Your task to perform on an android device: uninstall "Viber Messenger" Image 0: 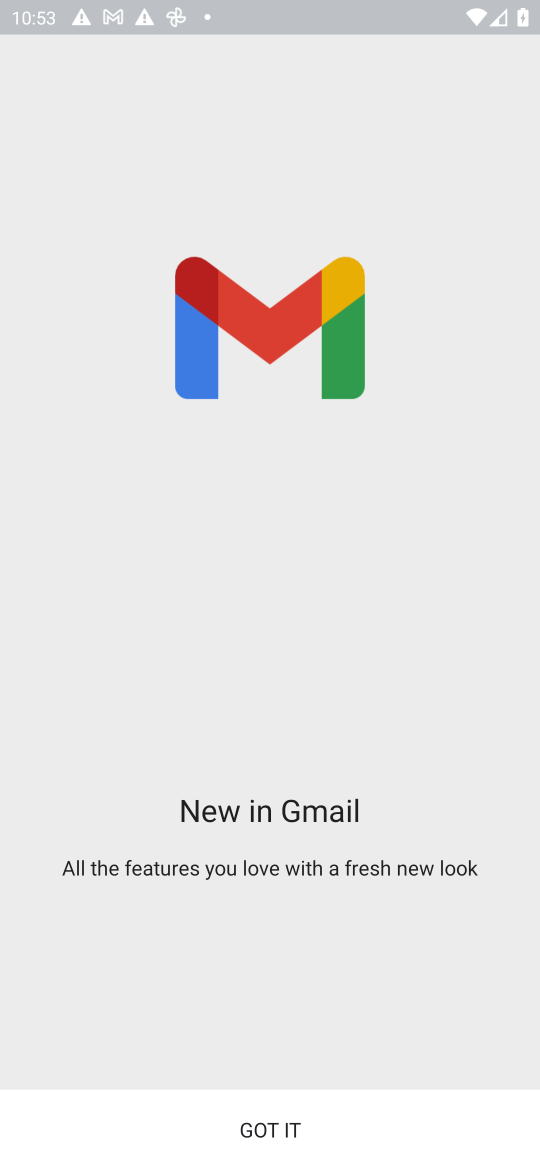
Step 0: press home button
Your task to perform on an android device: uninstall "Viber Messenger" Image 1: 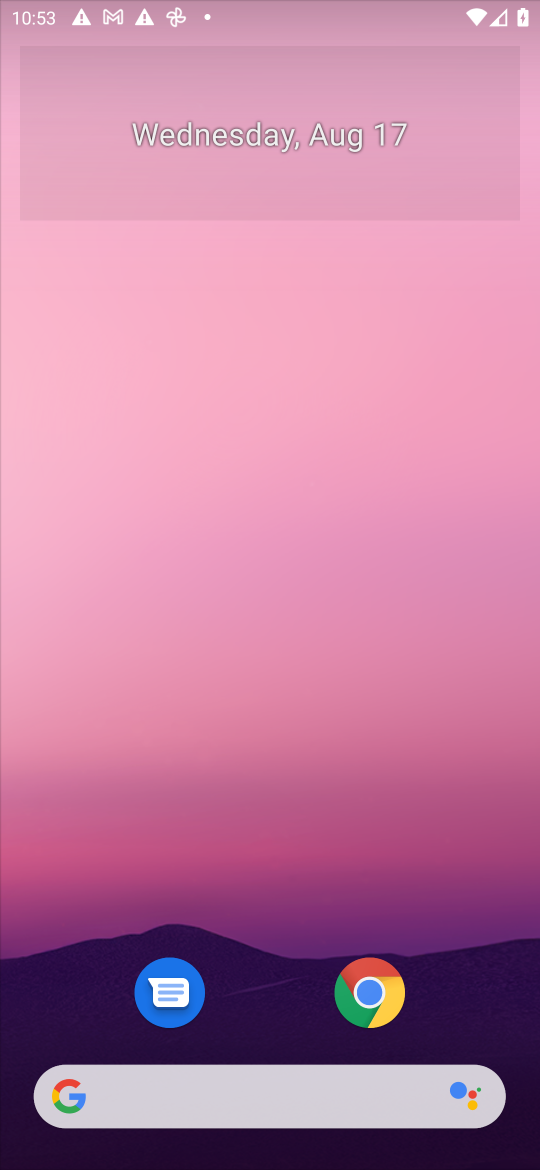
Step 1: drag from (488, 990) to (234, 8)
Your task to perform on an android device: uninstall "Viber Messenger" Image 2: 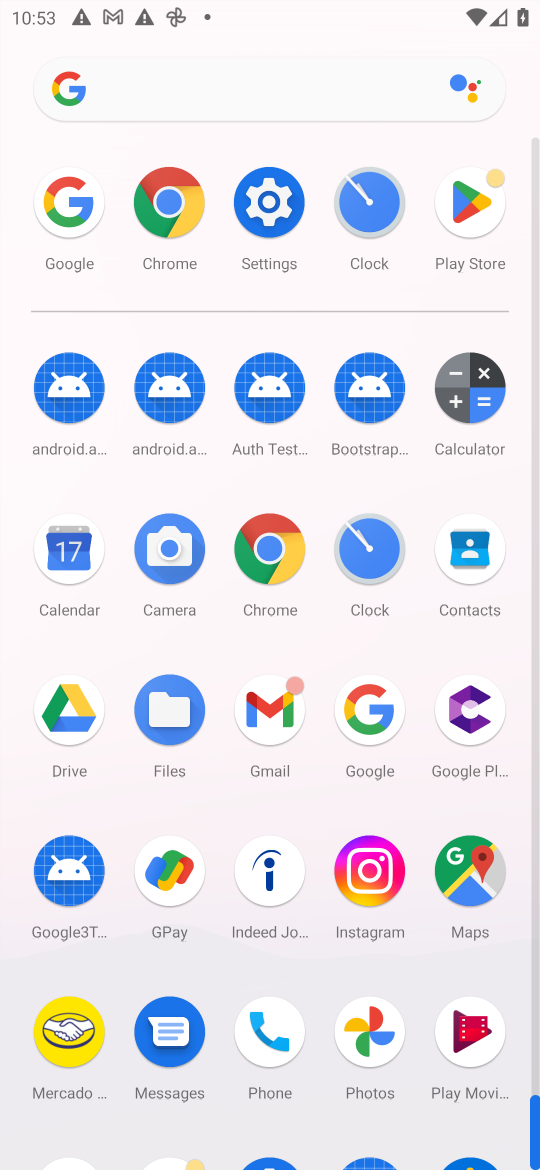
Step 2: click (470, 225)
Your task to perform on an android device: uninstall "Viber Messenger" Image 3: 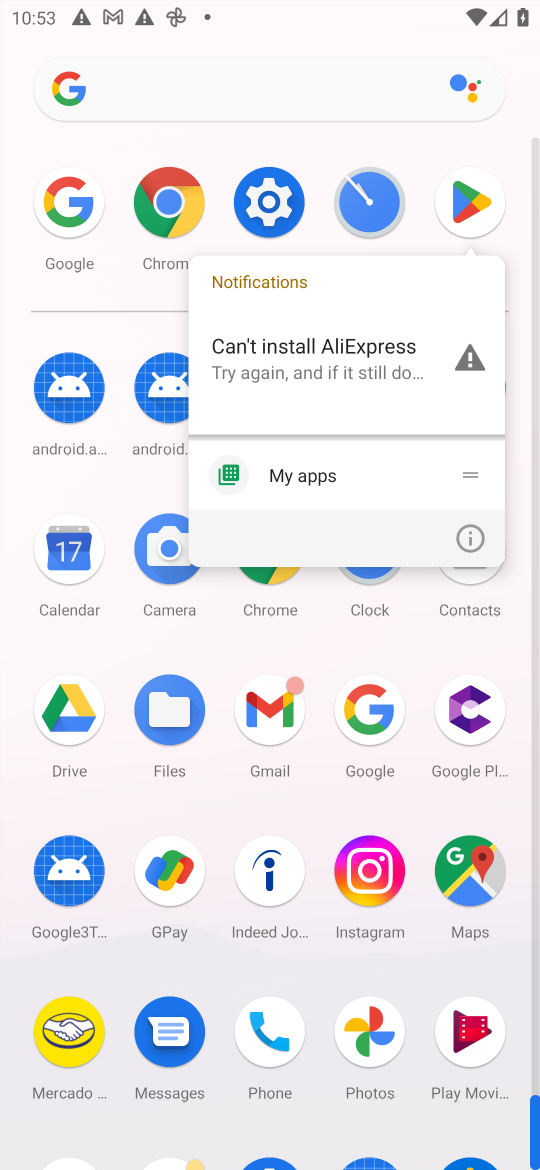
Step 3: click (470, 210)
Your task to perform on an android device: uninstall "Viber Messenger" Image 4: 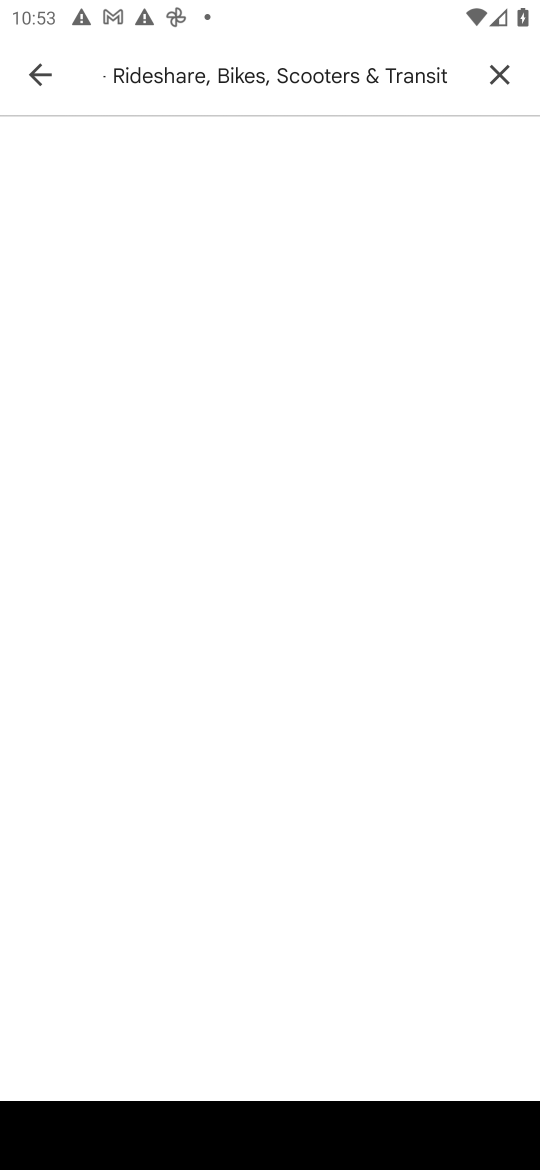
Step 4: click (494, 77)
Your task to perform on an android device: uninstall "Viber Messenger" Image 5: 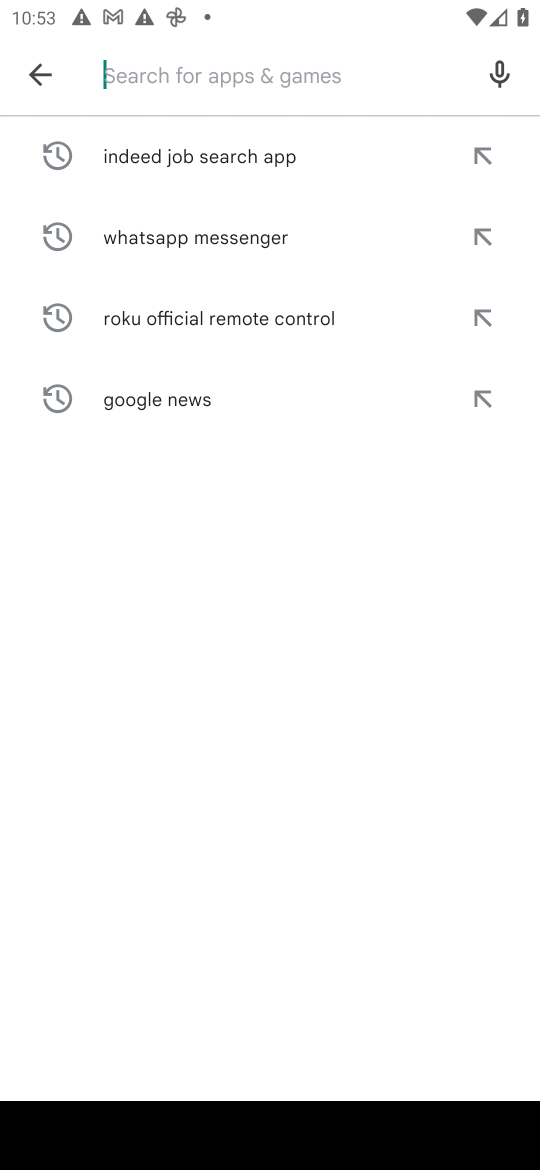
Step 5: type "Viber Messenger"
Your task to perform on an android device: uninstall "Viber Messenger" Image 6: 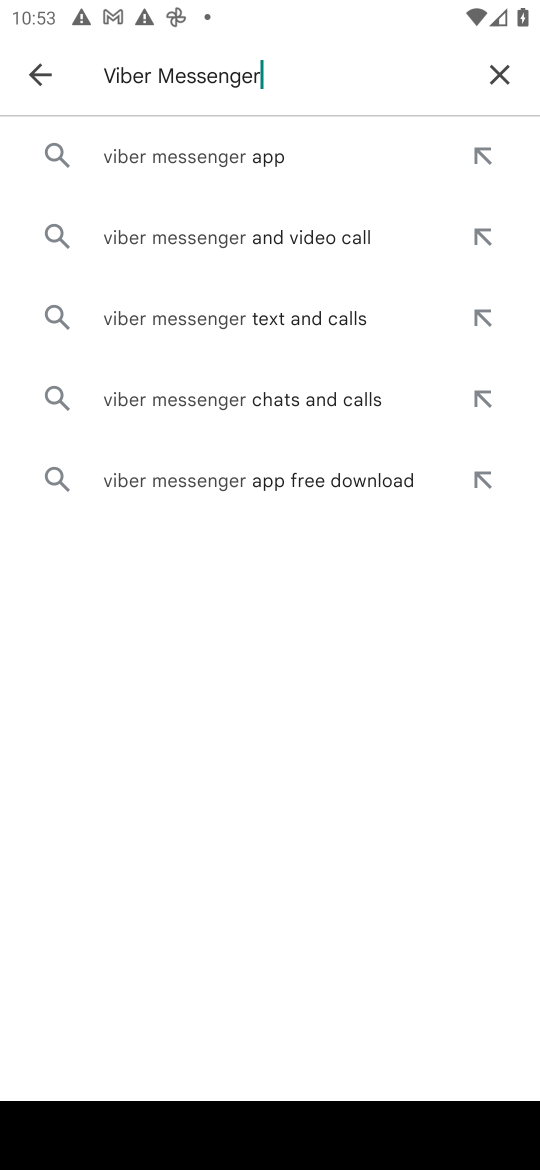
Step 6: click (171, 154)
Your task to perform on an android device: uninstall "Viber Messenger" Image 7: 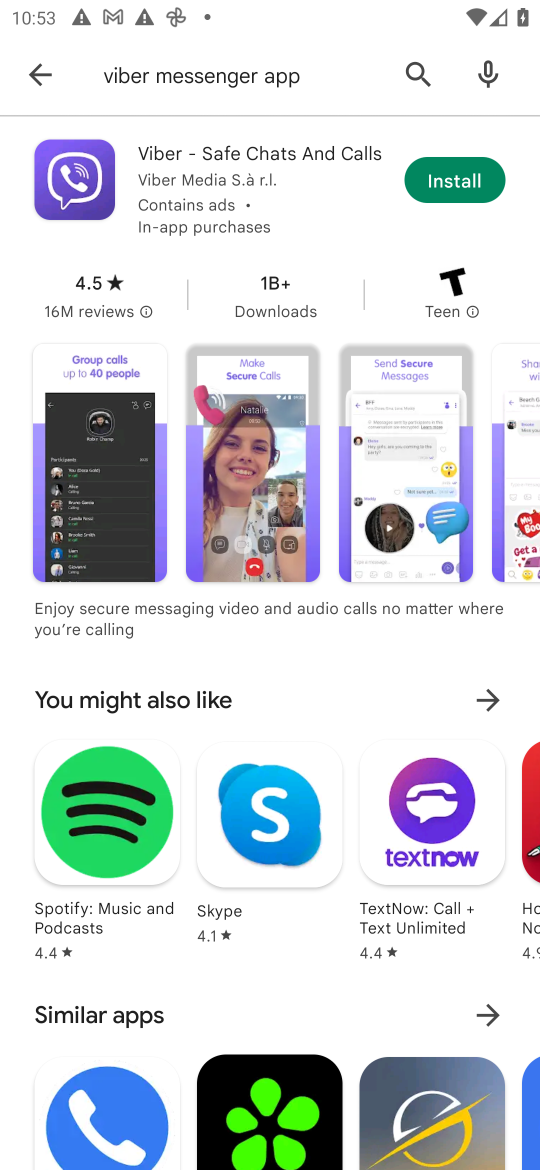
Step 7: task complete